Your task to perform on an android device: Clear the cart on ebay.com. Search for logitech g pro on ebay.com, select the first entry, add it to the cart, then select checkout. Image 0: 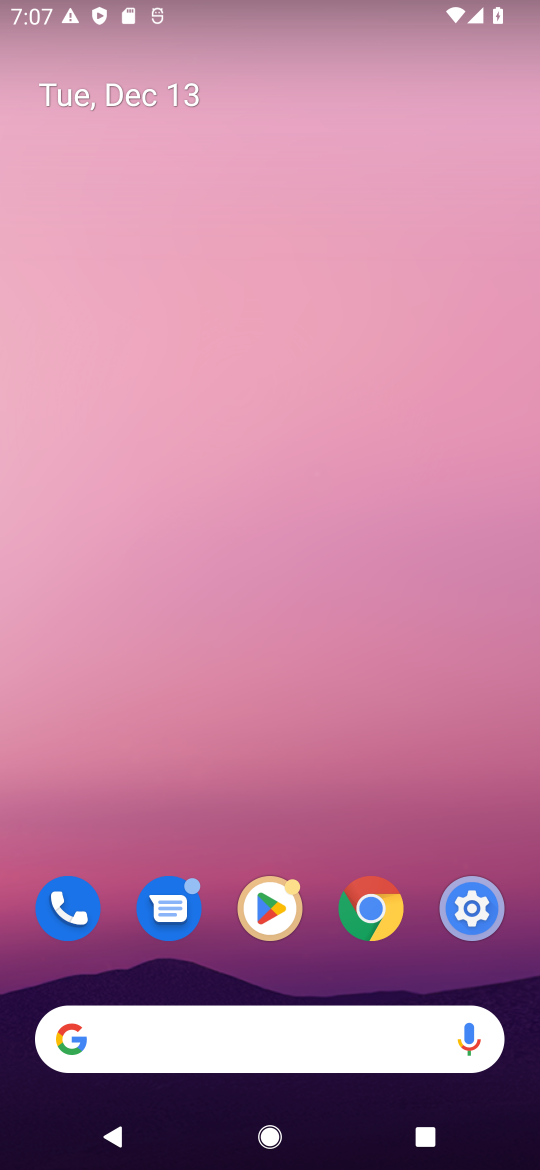
Step 0: click (132, 1036)
Your task to perform on an android device: Clear the cart on ebay.com. Search for logitech g pro on ebay.com, select the first entry, add it to the cart, then select checkout. Image 1: 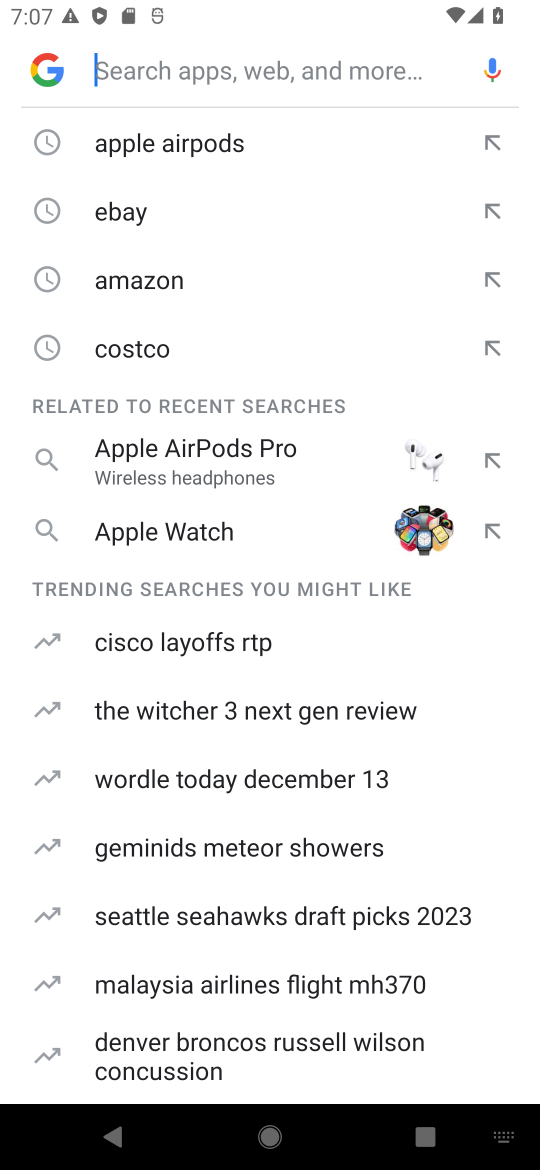
Step 1: type "ebay.com"
Your task to perform on an android device: Clear the cart on ebay.com. Search for logitech g pro on ebay.com, select the first entry, add it to the cart, then select checkout. Image 2: 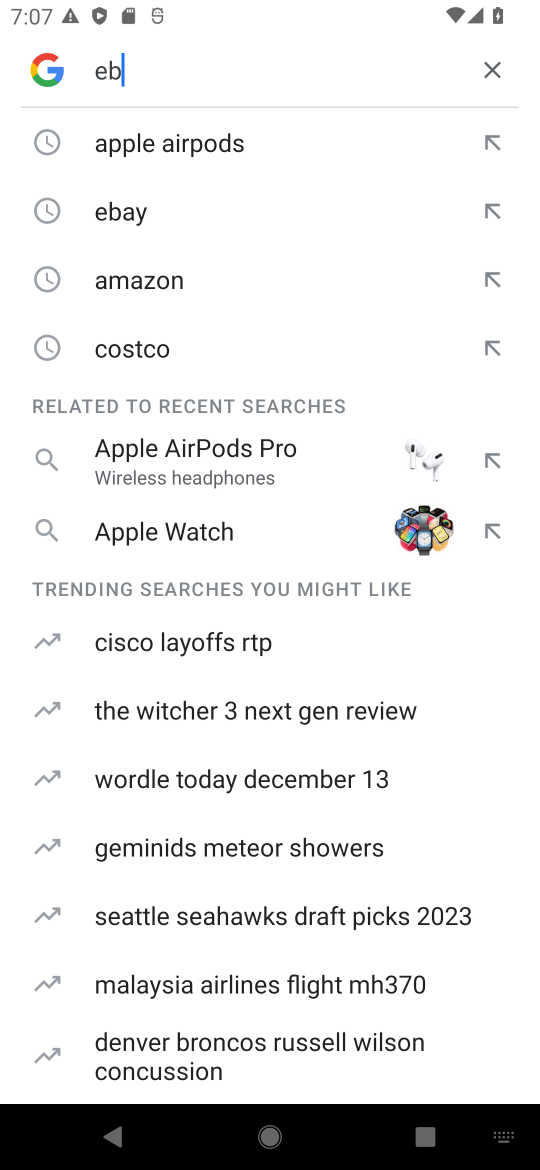
Step 2: press enter
Your task to perform on an android device: Clear the cart on ebay.com. Search for logitech g pro on ebay.com, select the first entry, add it to the cart, then select checkout. Image 3: 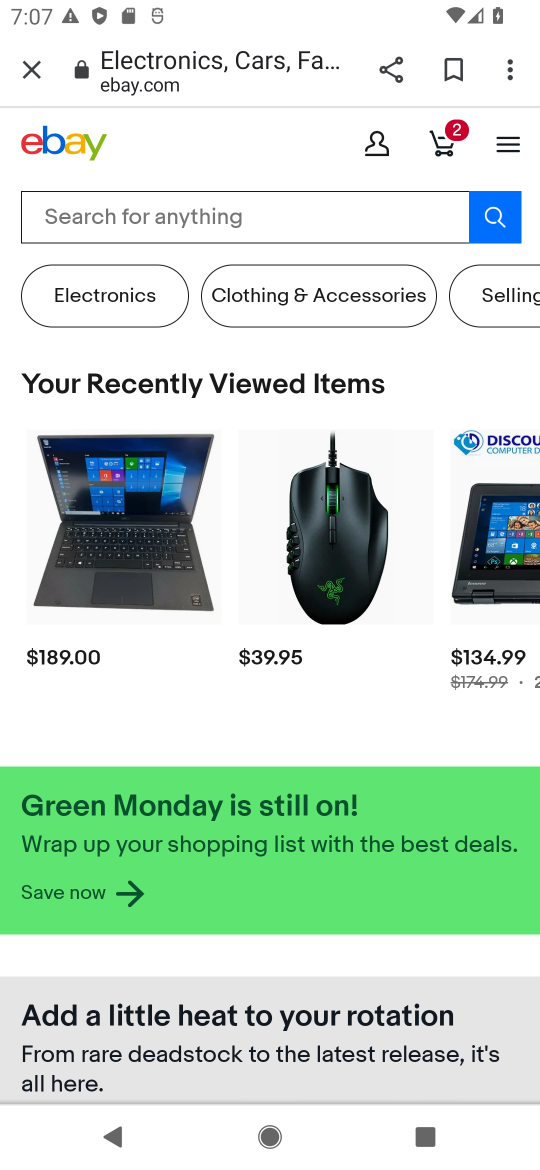
Step 3: click (442, 153)
Your task to perform on an android device: Clear the cart on ebay.com. Search for logitech g pro on ebay.com, select the first entry, add it to the cart, then select checkout. Image 4: 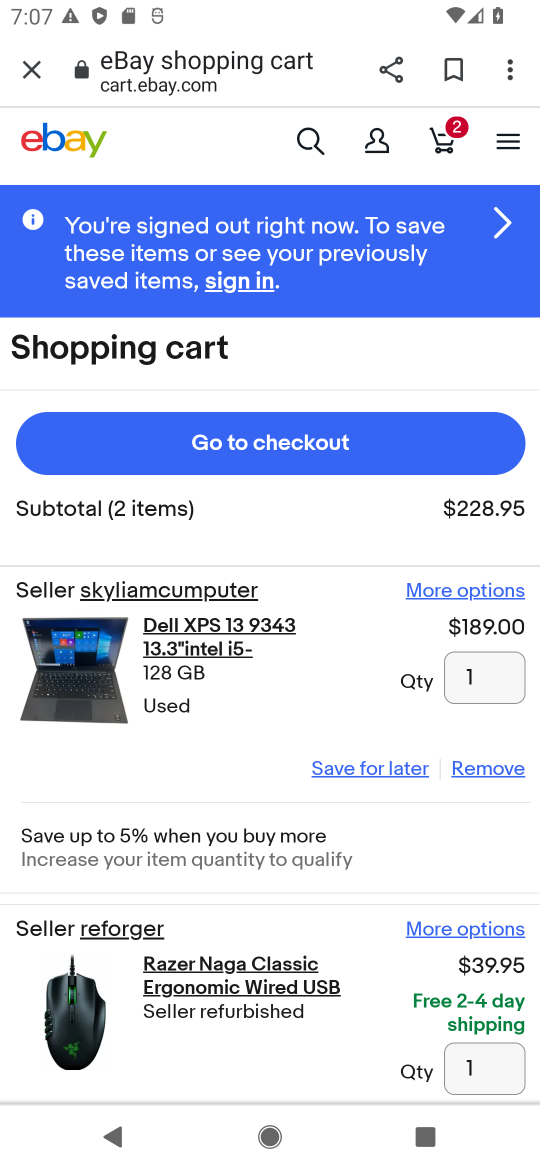
Step 4: click (492, 775)
Your task to perform on an android device: Clear the cart on ebay.com. Search for logitech g pro on ebay.com, select the first entry, add it to the cart, then select checkout. Image 5: 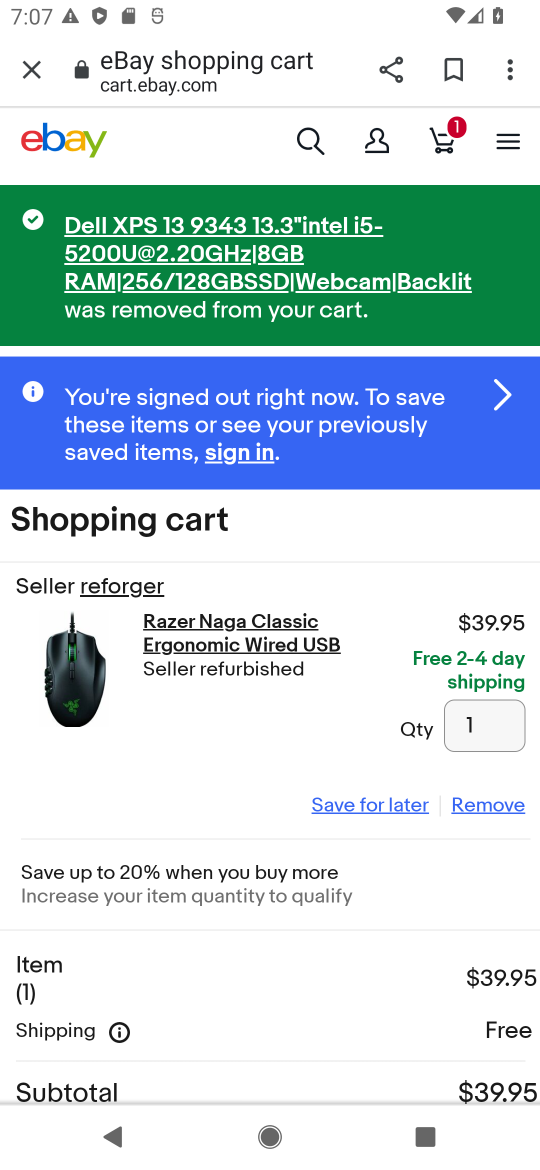
Step 5: click (486, 803)
Your task to perform on an android device: Clear the cart on ebay.com. Search for logitech g pro on ebay.com, select the first entry, add it to the cart, then select checkout. Image 6: 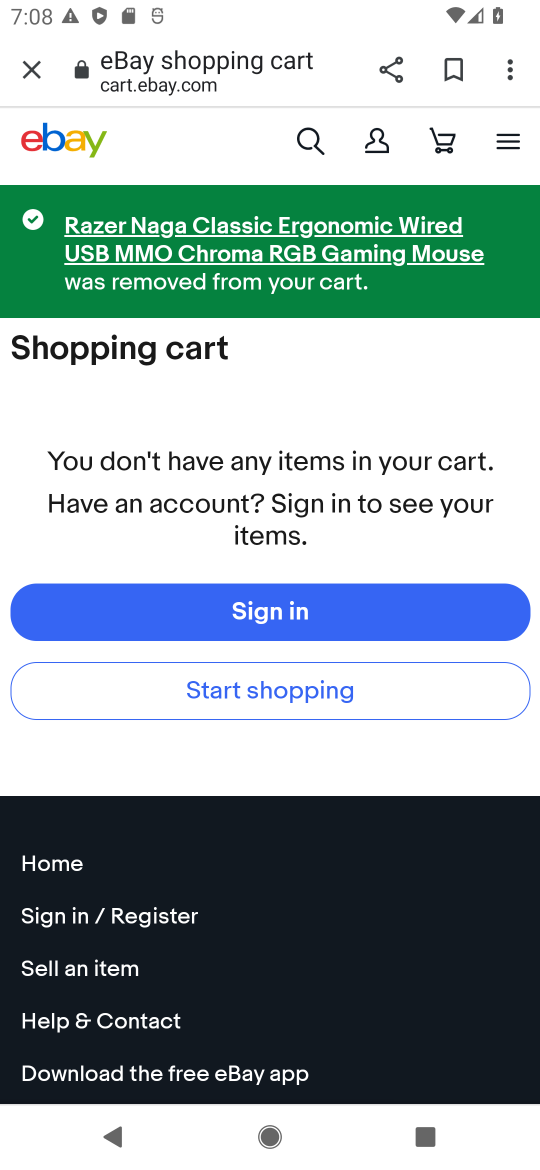
Step 6: click (306, 138)
Your task to perform on an android device: Clear the cart on ebay.com. Search for logitech g pro on ebay.com, select the first entry, add it to the cart, then select checkout. Image 7: 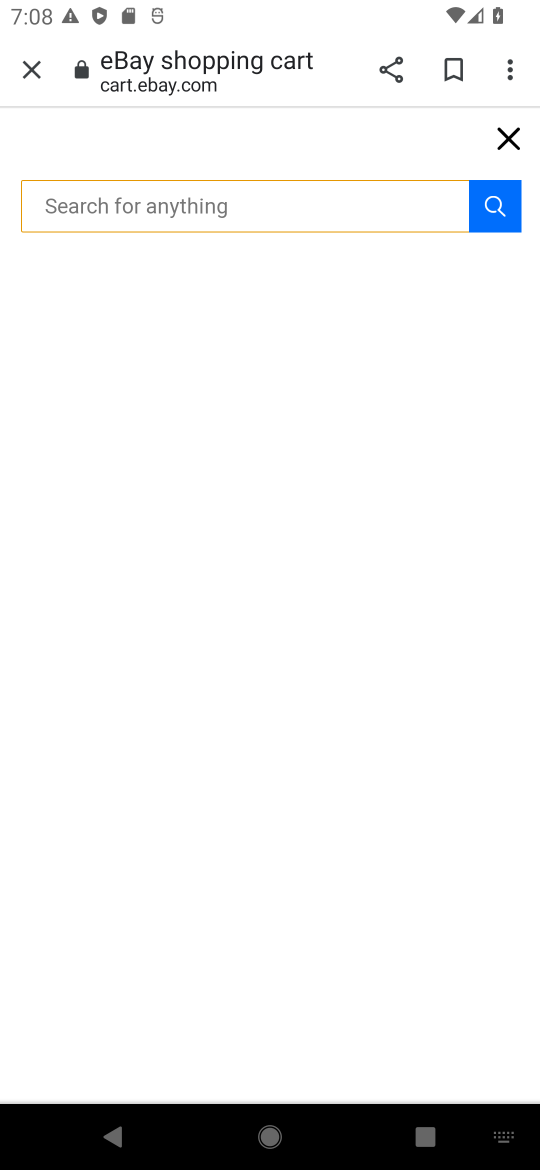
Step 7: type "logitech g pro"
Your task to perform on an android device: Clear the cart on ebay.com. Search for logitech g pro on ebay.com, select the first entry, add it to the cart, then select checkout. Image 8: 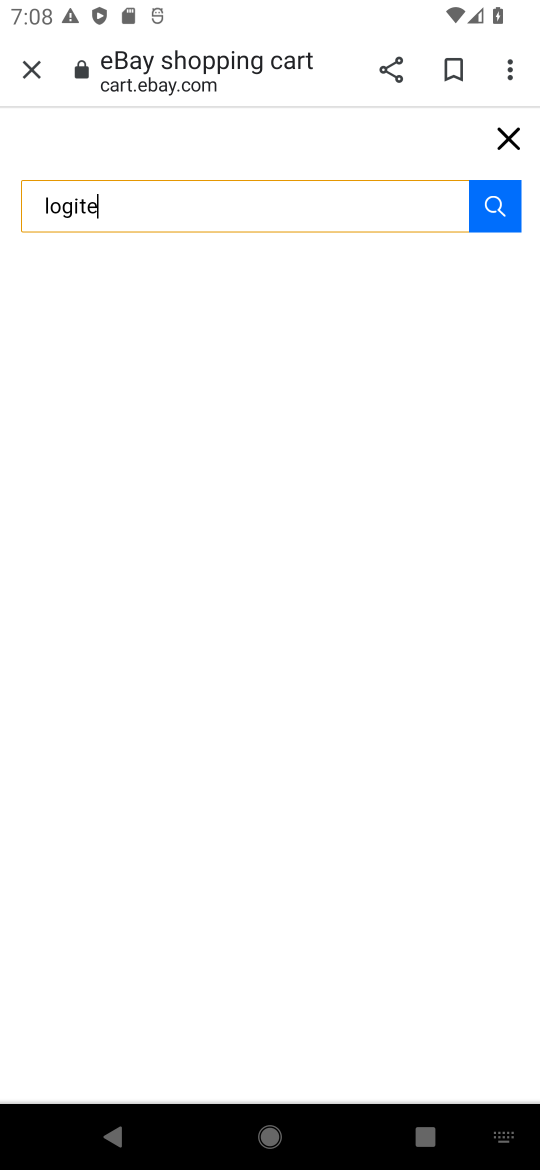
Step 8: press enter
Your task to perform on an android device: Clear the cart on ebay.com. Search for logitech g pro on ebay.com, select the first entry, add it to the cart, then select checkout. Image 9: 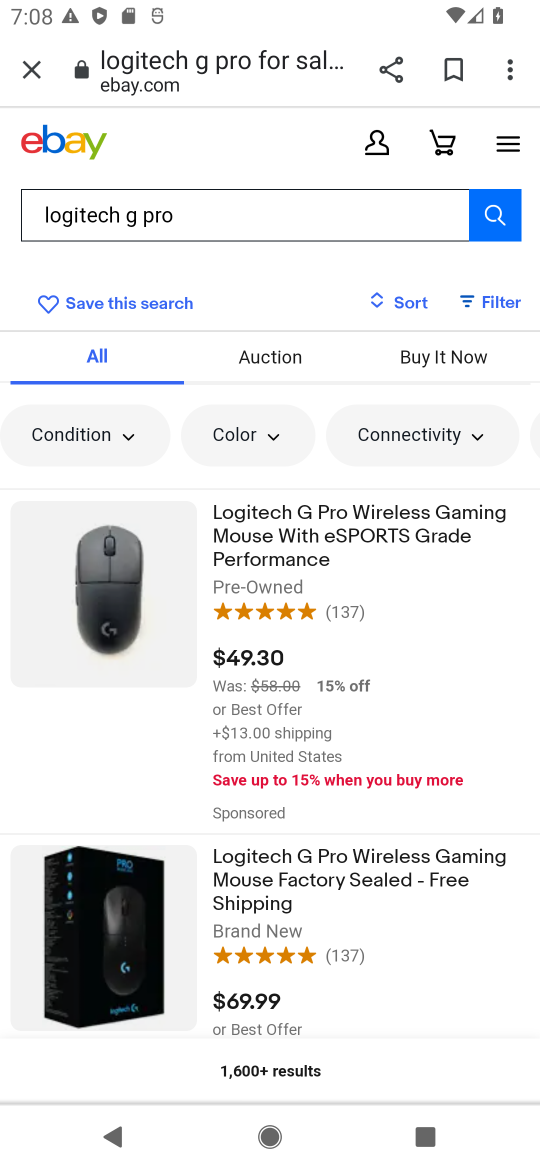
Step 9: click (312, 526)
Your task to perform on an android device: Clear the cart on ebay.com. Search for logitech g pro on ebay.com, select the first entry, add it to the cart, then select checkout. Image 10: 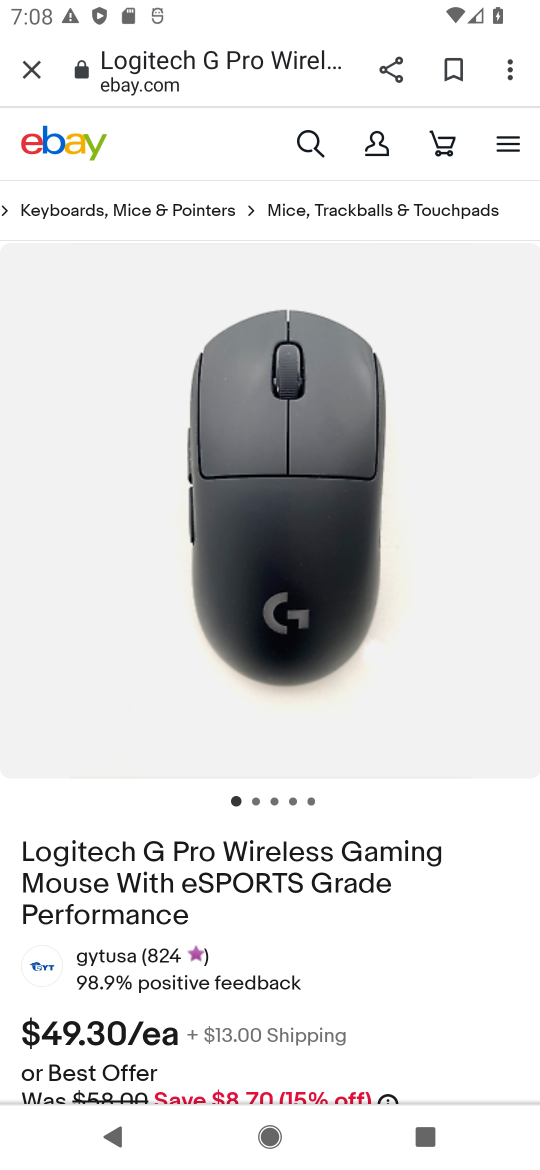
Step 10: drag from (252, 971) to (295, 482)
Your task to perform on an android device: Clear the cart on ebay.com. Search for logitech g pro on ebay.com, select the first entry, add it to the cart, then select checkout. Image 11: 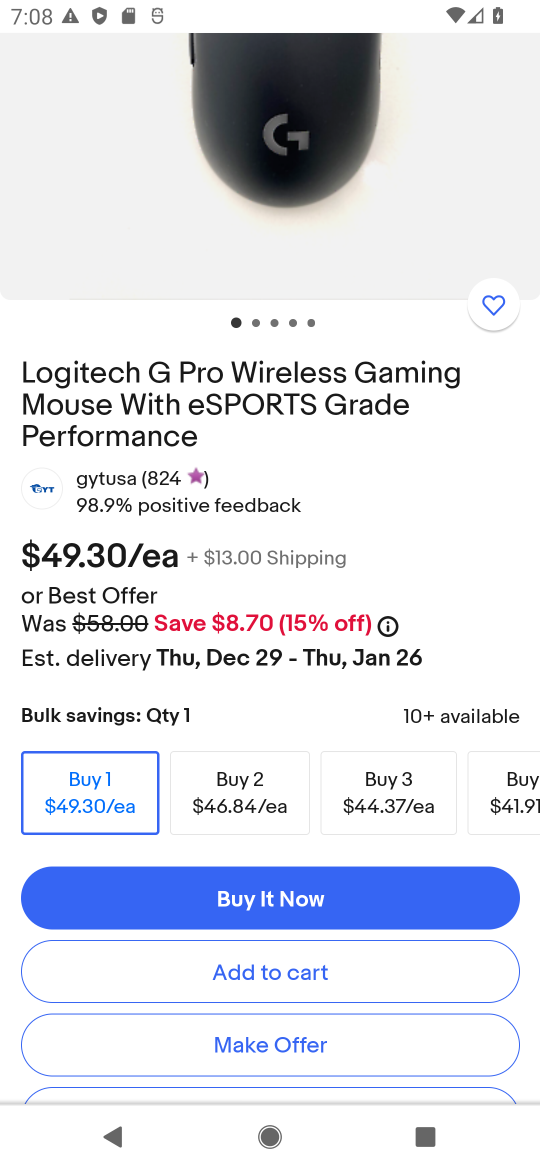
Step 11: click (293, 983)
Your task to perform on an android device: Clear the cart on ebay.com. Search for logitech g pro on ebay.com, select the first entry, add it to the cart, then select checkout. Image 12: 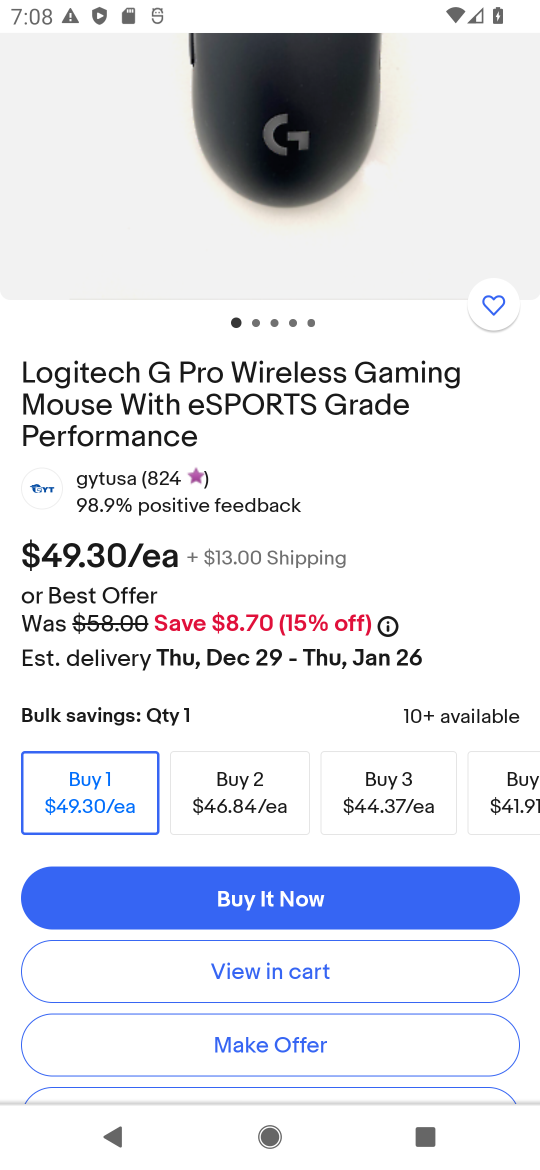
Step 12: click (270, 980)
Your task to perform on an android device: Clear the cart on ebay.com. Search for logitech g pro on ebay.com, select the first entry, add it to the cart, then select checkout. Image 13: 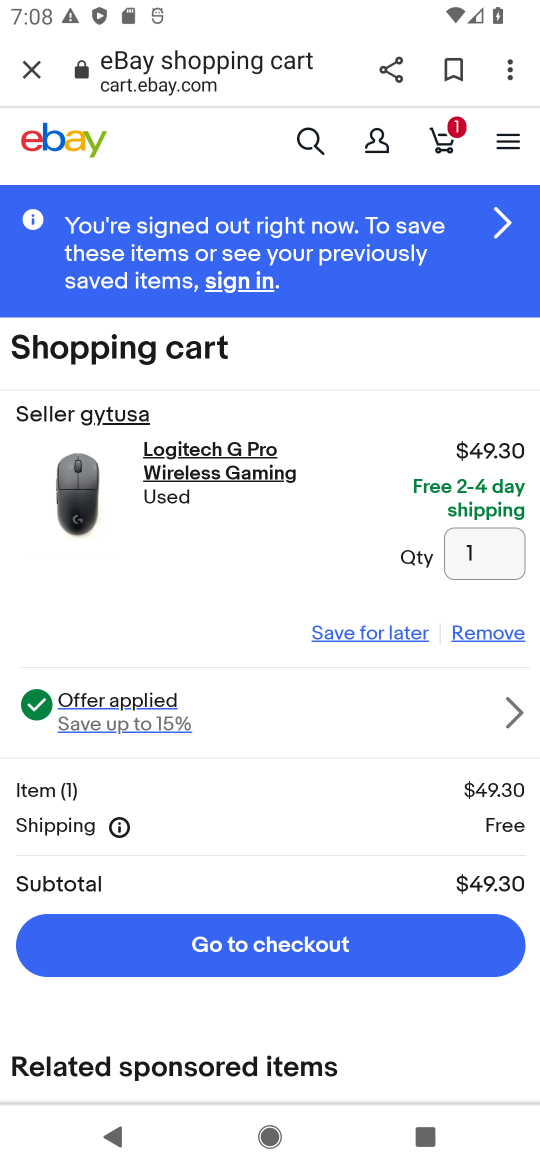
Step 13: click (267, 942)
Your task to perform on an android device: Clear the cart on ebay.com. Search for logitech g pro on ebay.com, select the first entry, add it to the cart, then select checkout. Image 14: 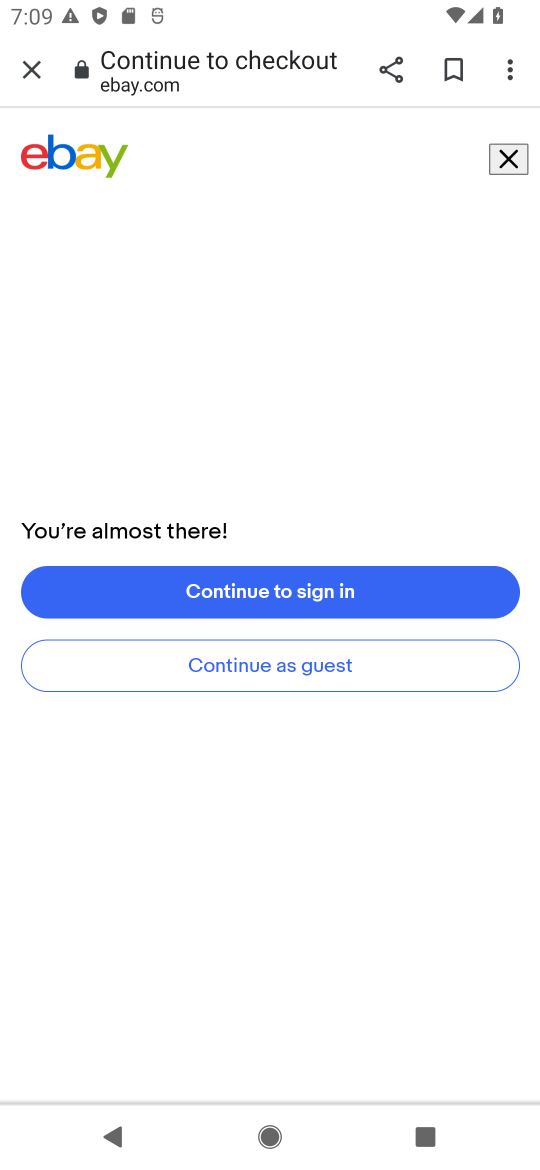
Step 14: task complete